Your task to perform on an android device: Is it going to rain this weekend? Image 0: 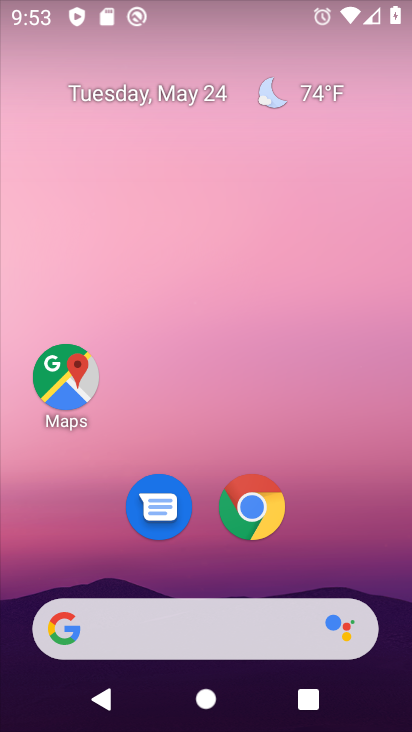
Step 0: click (270, 95)
Your task to perform on an android device: Is it going to rain this weekend? Image 1: 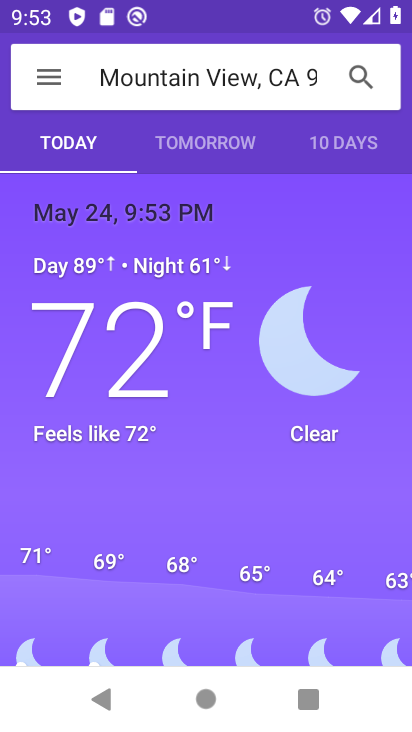
Step 1: click (341, 140)
Your task to perform on an android device: Is it going to rain this weekend? Image 2: 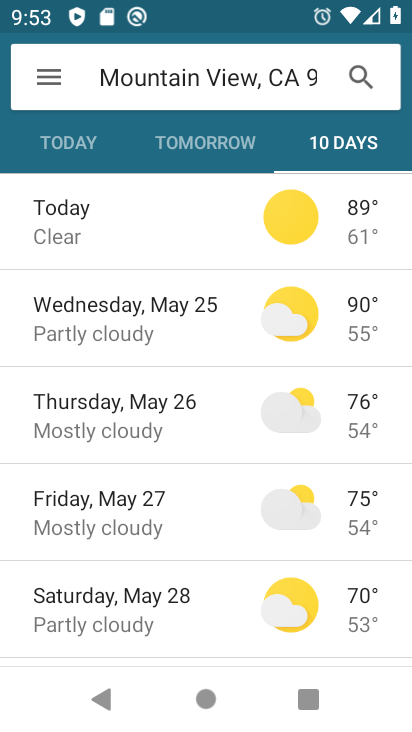
Step 2: drag from (218, 627) to (208, 341)
Your task to perform on an android device: Is it going to rain this weekend? Image 3: 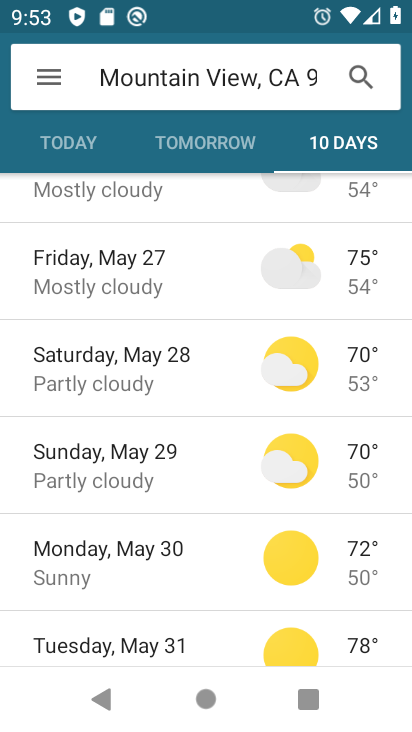
Step 3: click (145, 372)
Your task to perform on an android device: Is it going to rain this weekend? Image 4: 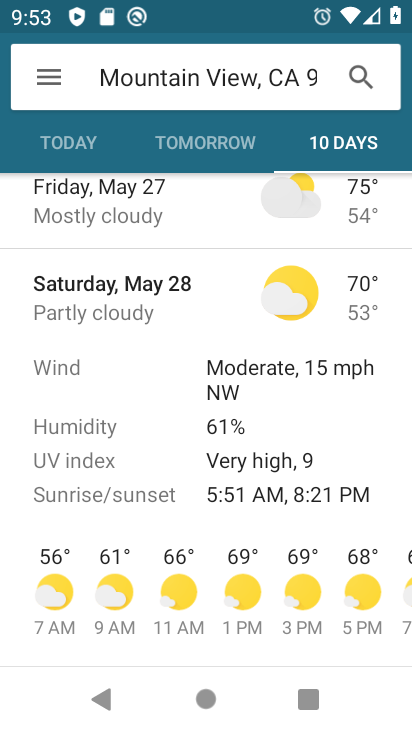
Step 4: task complete